Your task to perform on an android device: Open Chrome and go to the settings page Image 0: 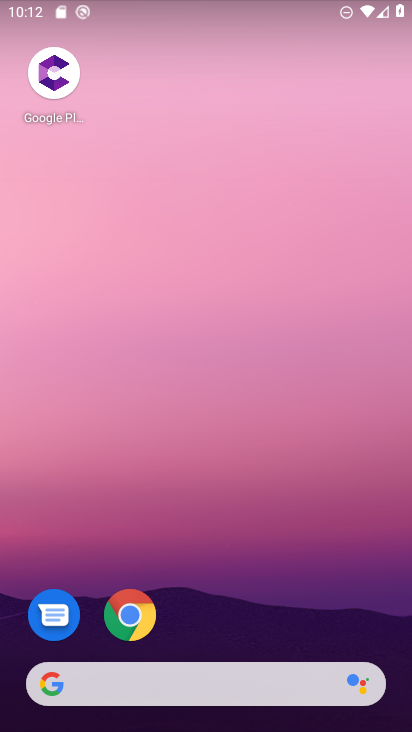
Step 0: click (128, 613)
Your task to perform on an android device: Open Chrome and go to the settings page Image 1: 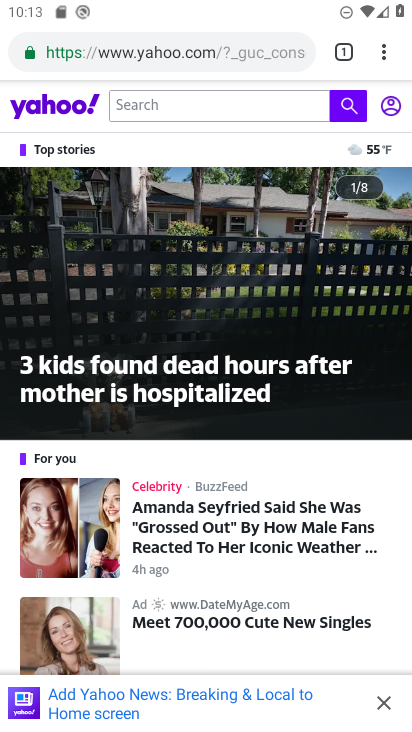
Step 1: click (382, 56)
Your task to perform on an android device: Open Chrome and go to the settings page Image 2: 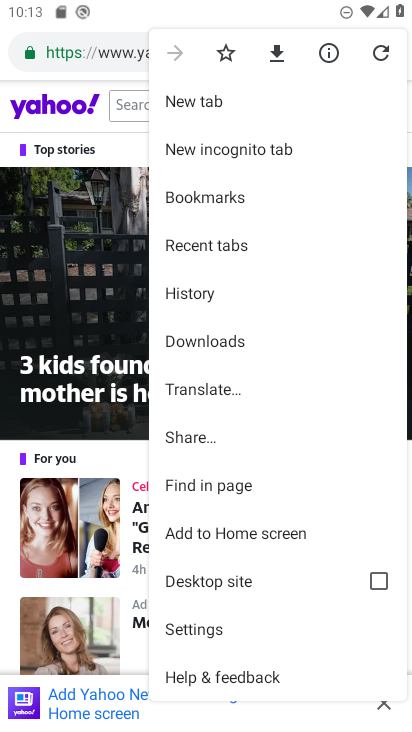
Step 2: click (204, 628)
Your task to perform on an android device: Open Chrome and go to the settings page Image 3: 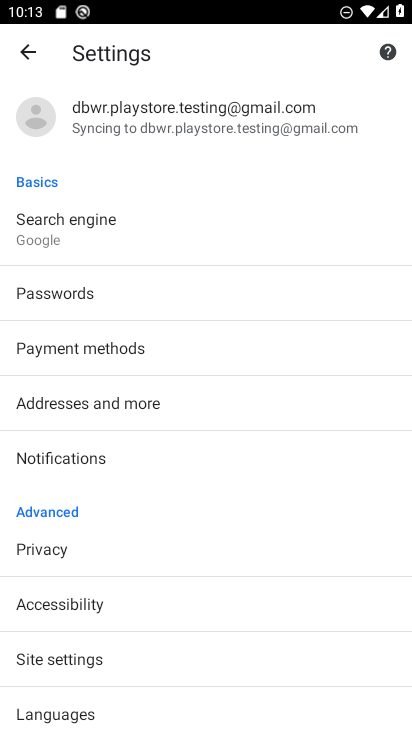
Step 3: task complete